Your task to perform on an android device: Go to Reddit.com Image 0: 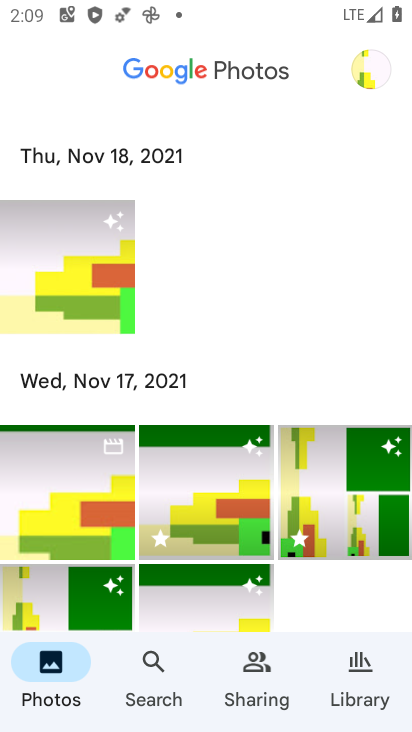
Step 0: press home button
Your task to perform on an android device: Go to Reddit.com Image 1: 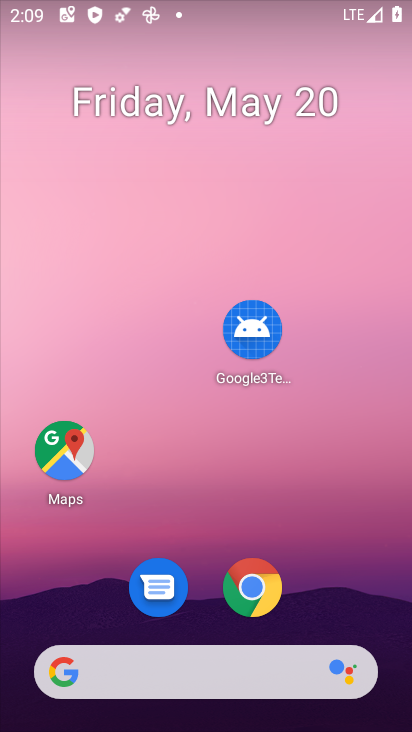
Step 1: click (240, 582)
Your task to perform on an android device: Go to Reddit.com Image 2: 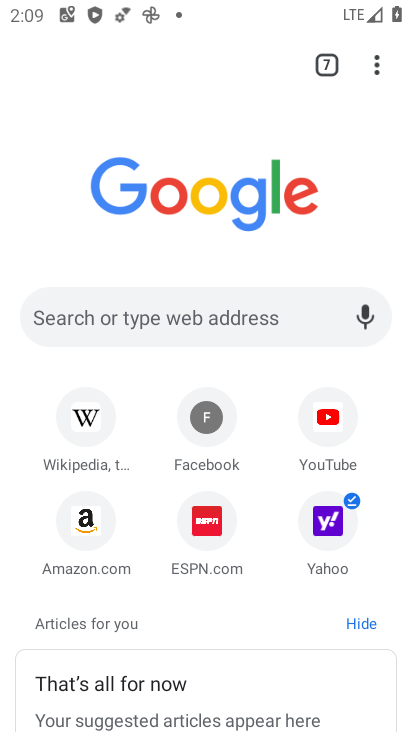
Step 2: click (208, 305)
Your task to perform on an android device: Go to Reddit.com Image 3: 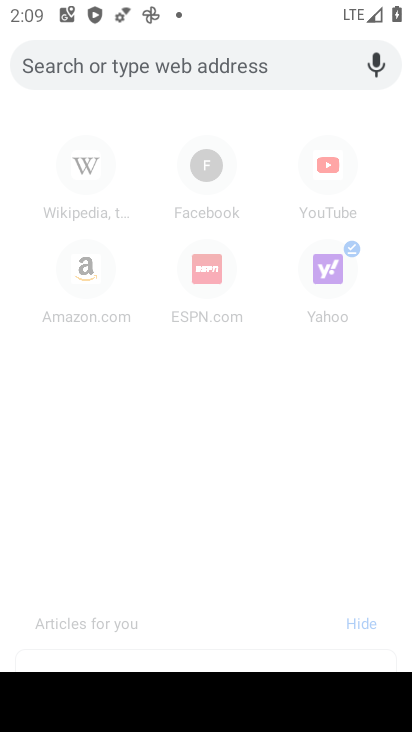
Step 3: type "reddit.com"
Your task to perform on an android device: Go to Reddit.com Image 4: 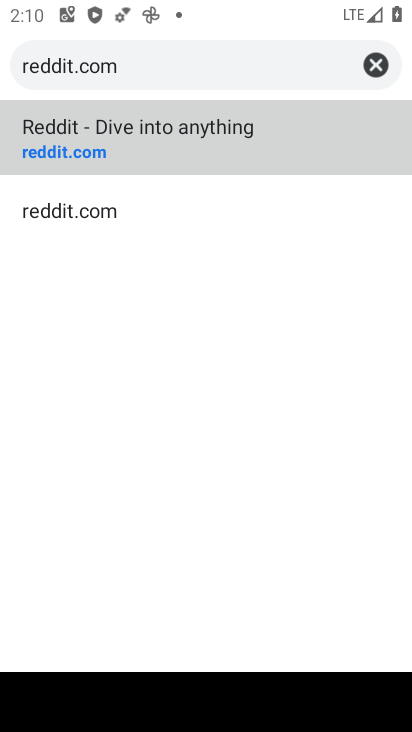
Step 4: click (89, 130)
Your task to perform on an android device: Go to Reddit.com Image 5: 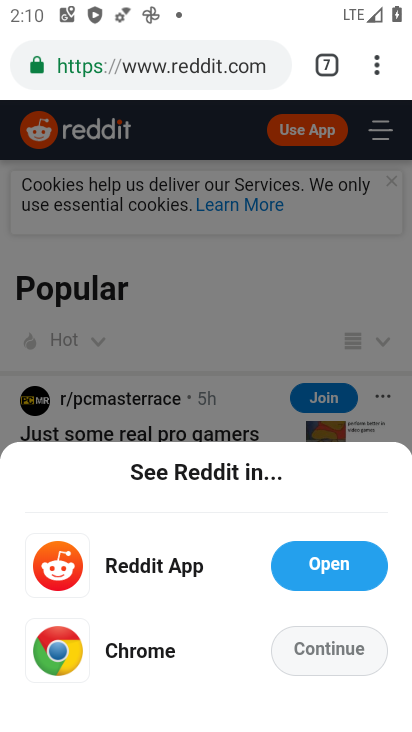
Step 5: click (321, 649)
Your task to perform on an android device: Go to Reddit.com Image 6: 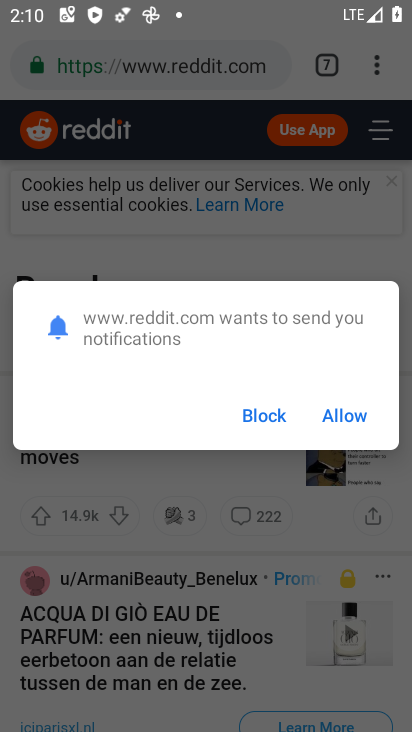
Step 6: click (348, 414)
Your task to perform on an android device: Go to Reddit.com Image 7: 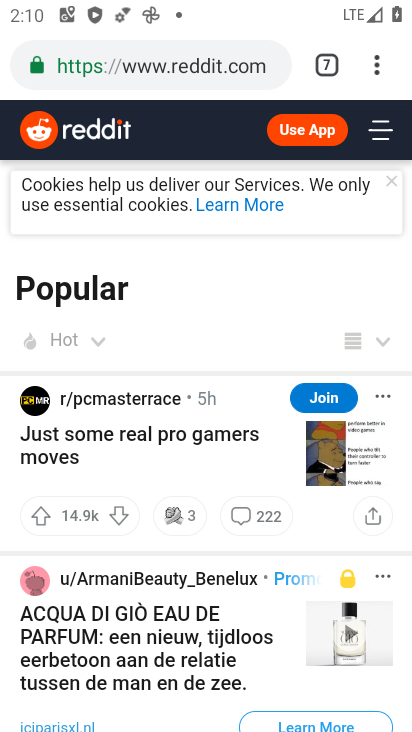
Step 7: task complete